Your task to perform on an android device: add a contact in the contacts app Image 0: 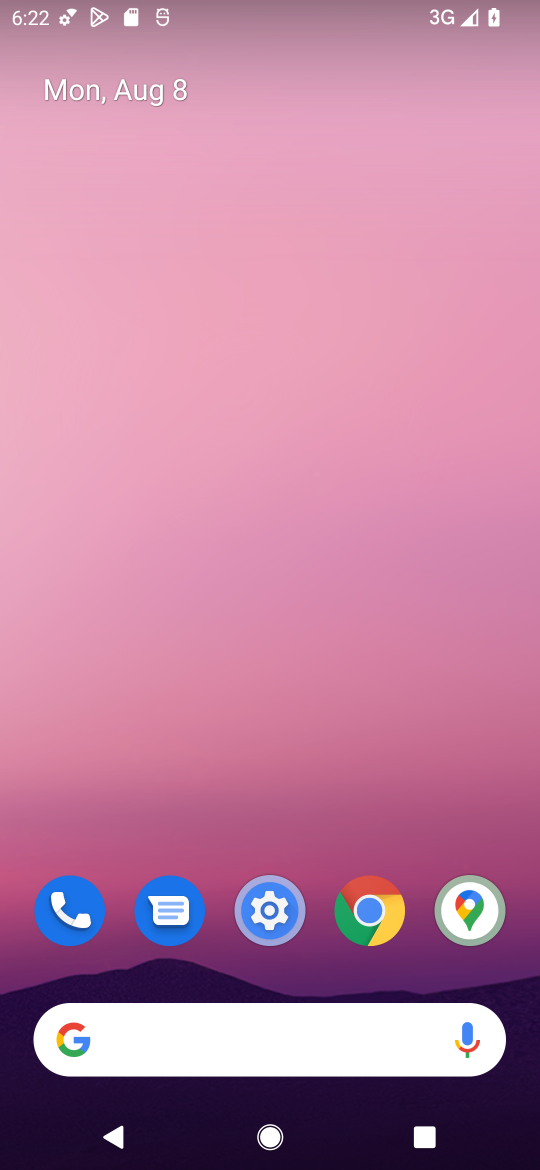
Step 0: click (52, 906)
Your task to perform on an android device: add a contact in the contacts app Image 1: 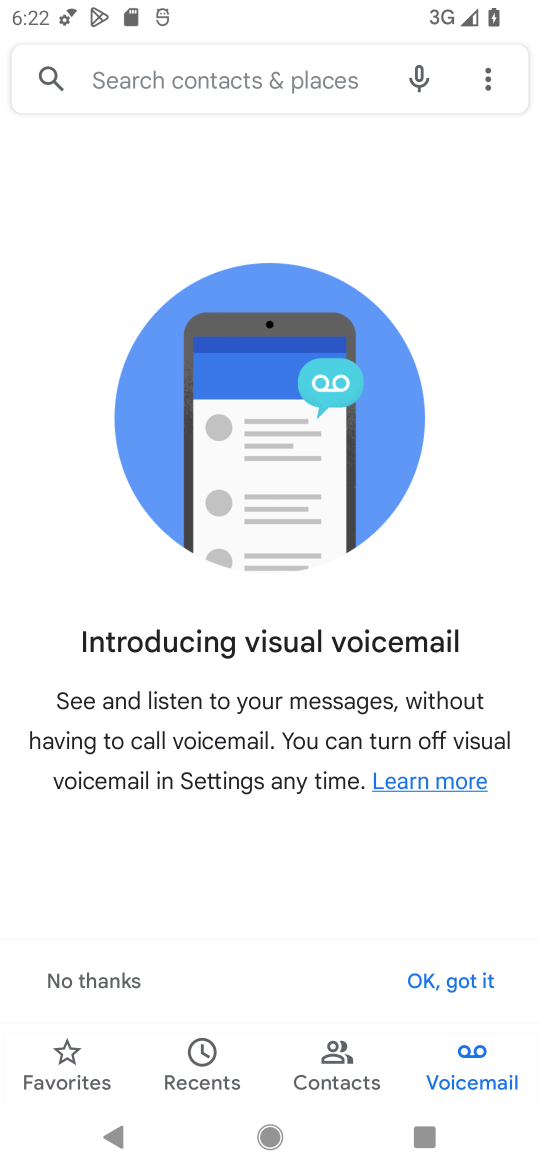
Step 1: click (331, 1056)
Your task to perform on an android device: add a contact in the contacts app Image 2: 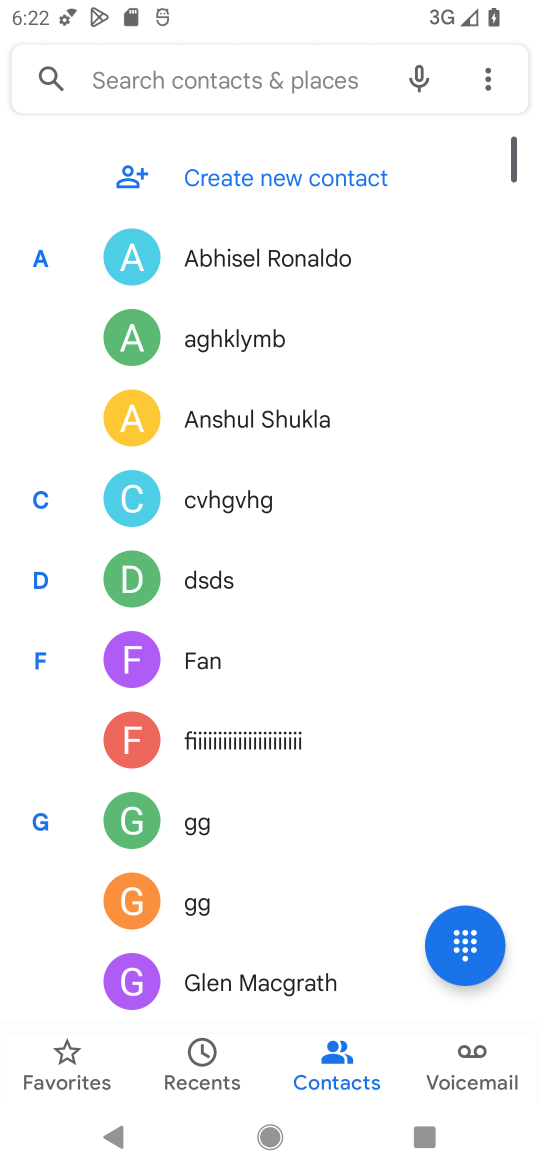
Step 2: click (275, 175)
Your task to perform on an android device: add a contact in the contacts app Image 3: 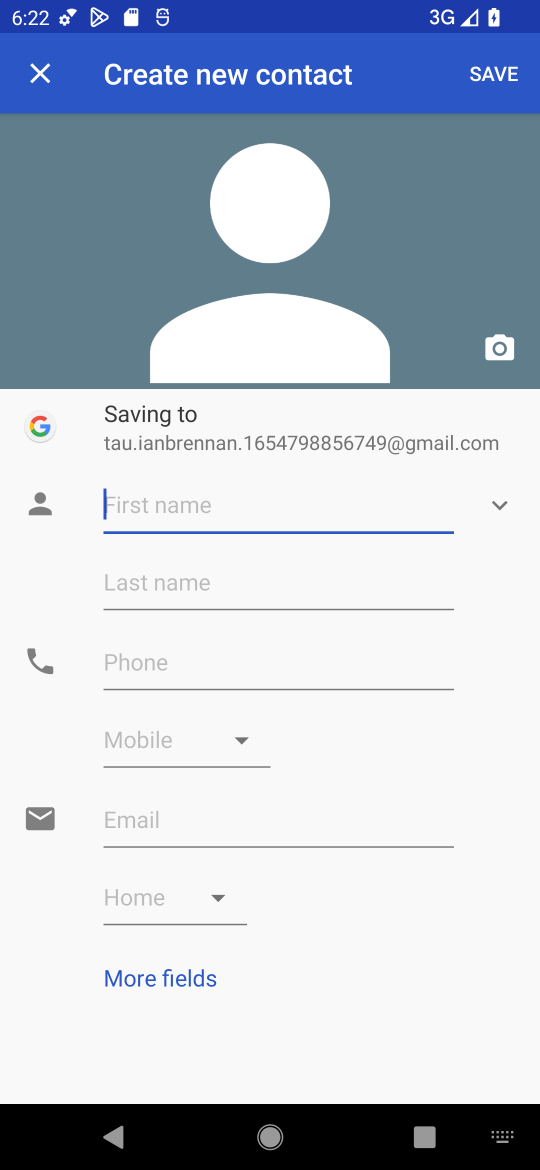
Step 3: type "fsdfsdf"
Your task to perform on an android device: add a contact in the contacts app Image 4: 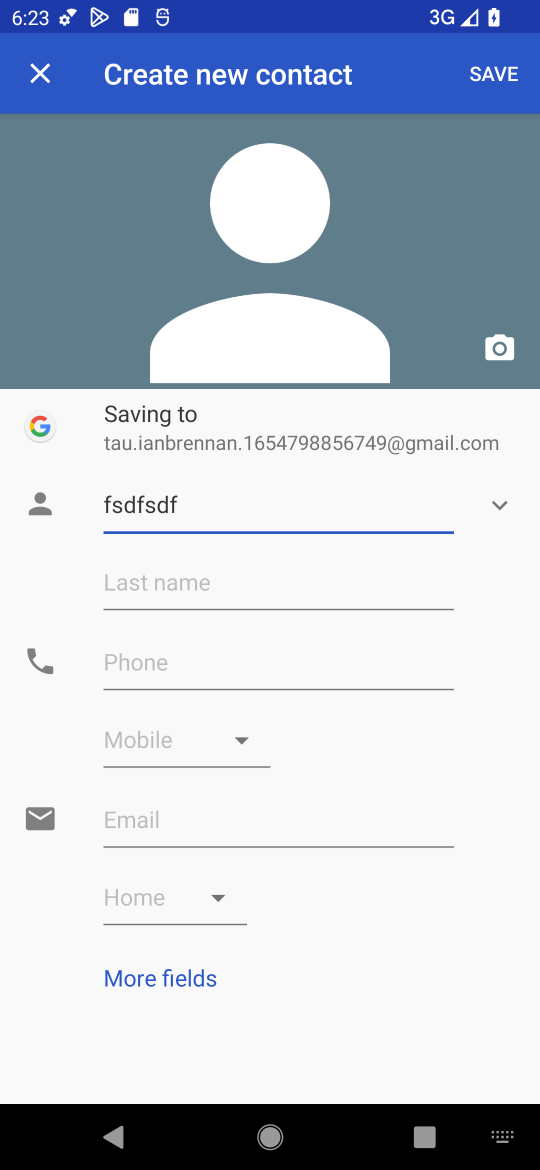
Step 4: click (158, 670)
Your task to perform on an android device: add a contact in the contacts app Image 5: 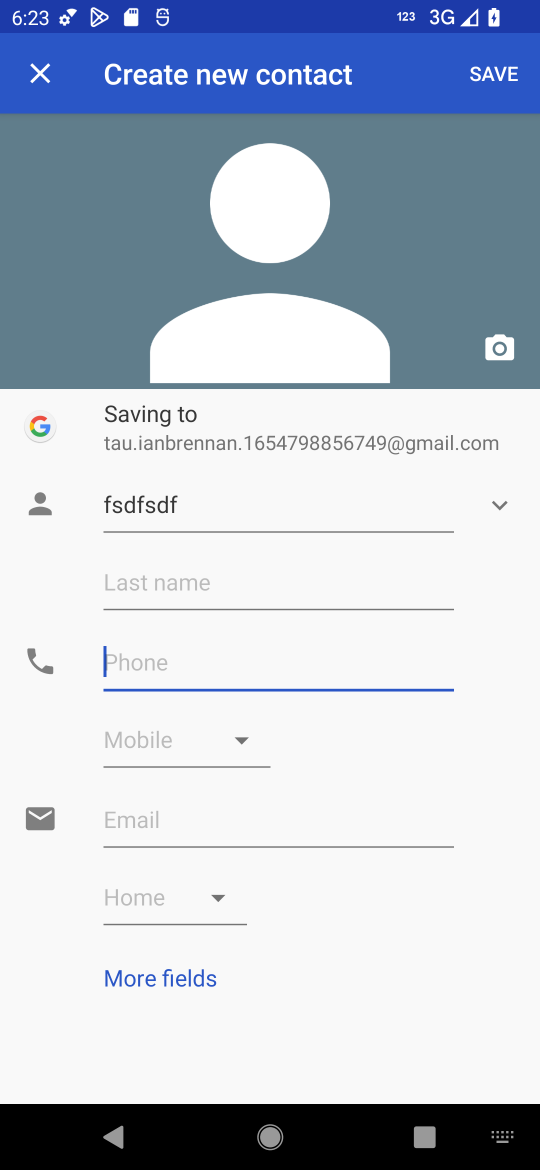
Step 5: type "e314132"
Your task to perform on an android device: add a contact in the contacts app Image 6: 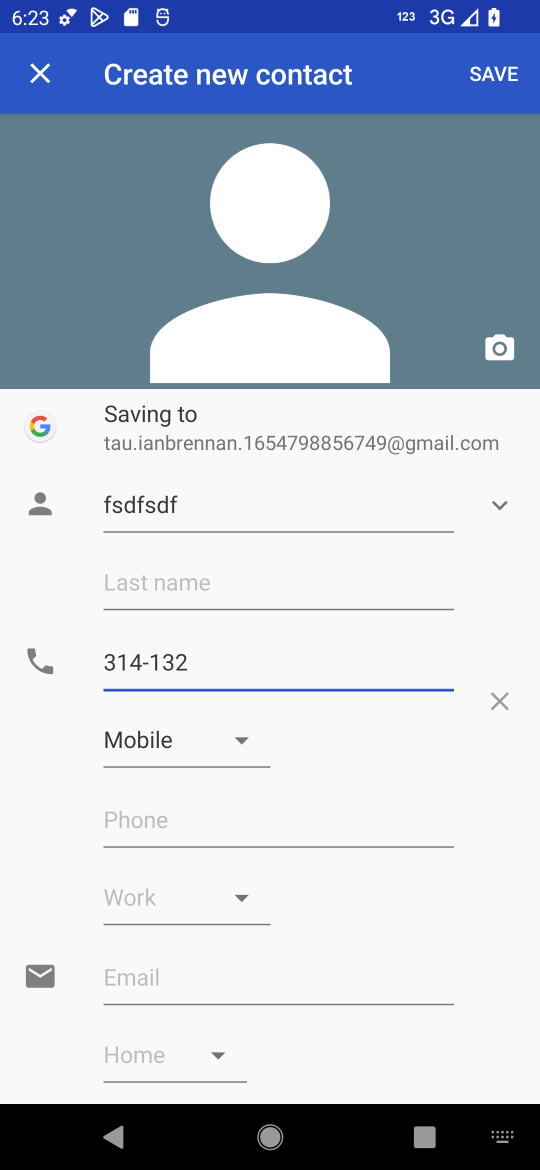
Step 6: click (499, 72)
Your task to perform on an android device: add a contact in the contacts app Image 7: 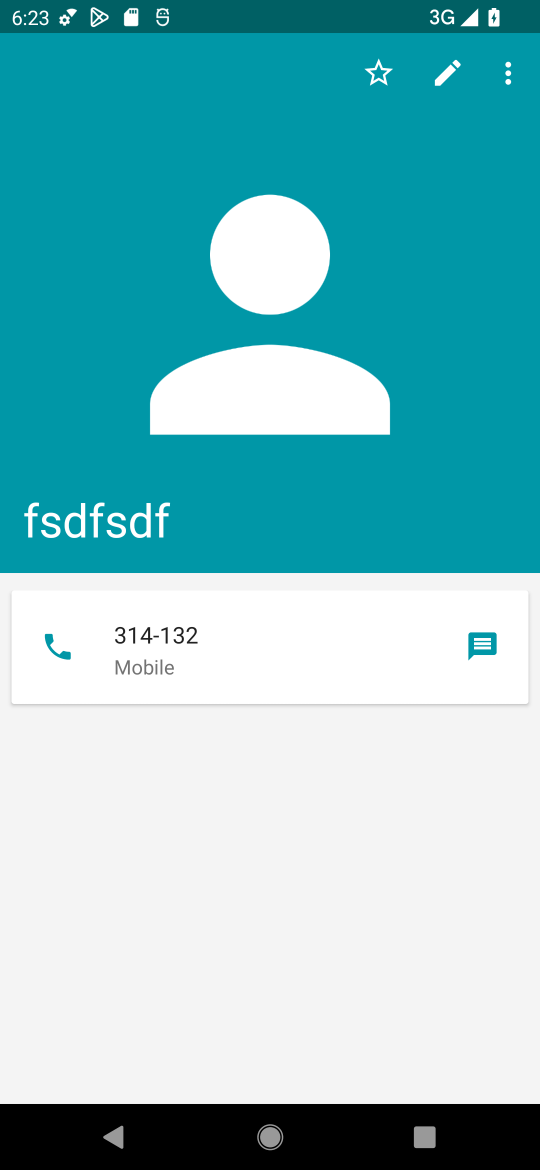
Step 7: task complete